Your task to perform on an android device: Play the last video I watched on Youtube Image 0: 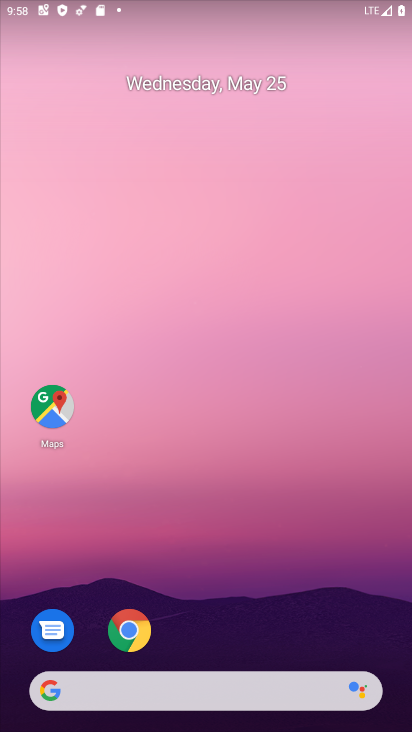
Step 0: drag from (202, 649) to (269, 112)
Your task to perform on an android device: Play the last video I watched on Youtube Image 1: 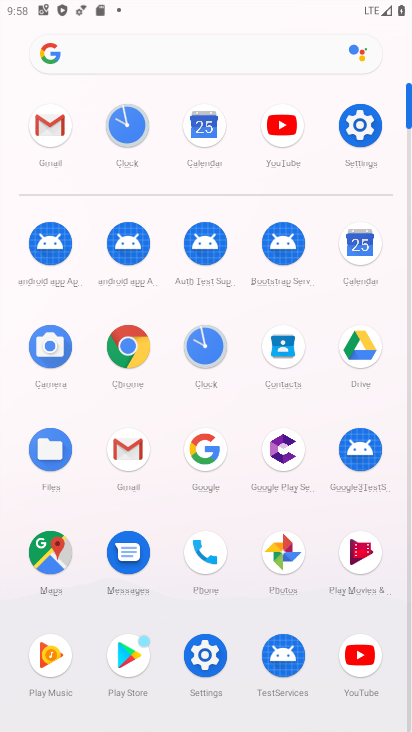
Step 1: click (355, 650)
Your task to perform on an android device: Play the last video I watched on Youtube Image 2: 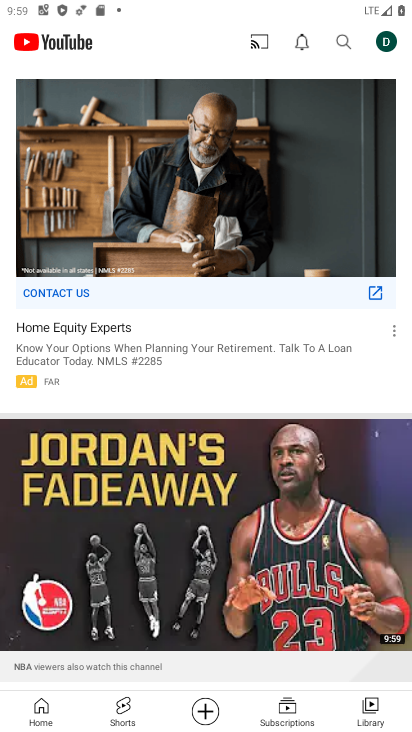
Step 2: click (360, 699)
Your task to perform on an android device: Play the last video I watched on Youtube Image 3: 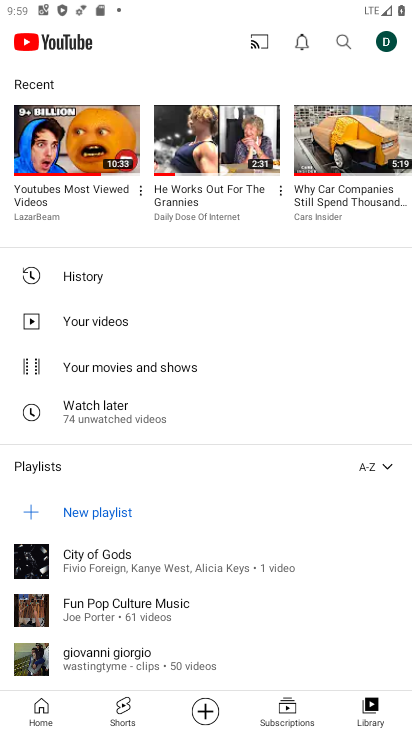
Step 3: click (87, 142)
Your task to perform on an android device: Play the last video I watched on Youtube Image 4: 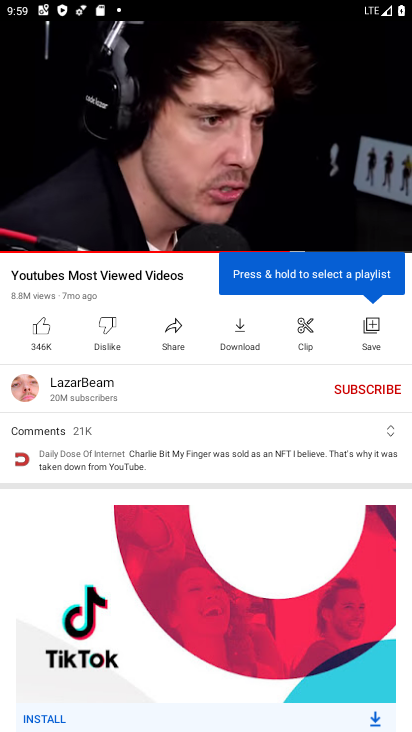
Step 4: task complete